Your task to perform on an android device: make emails show in primary in the gmail app Image 0: 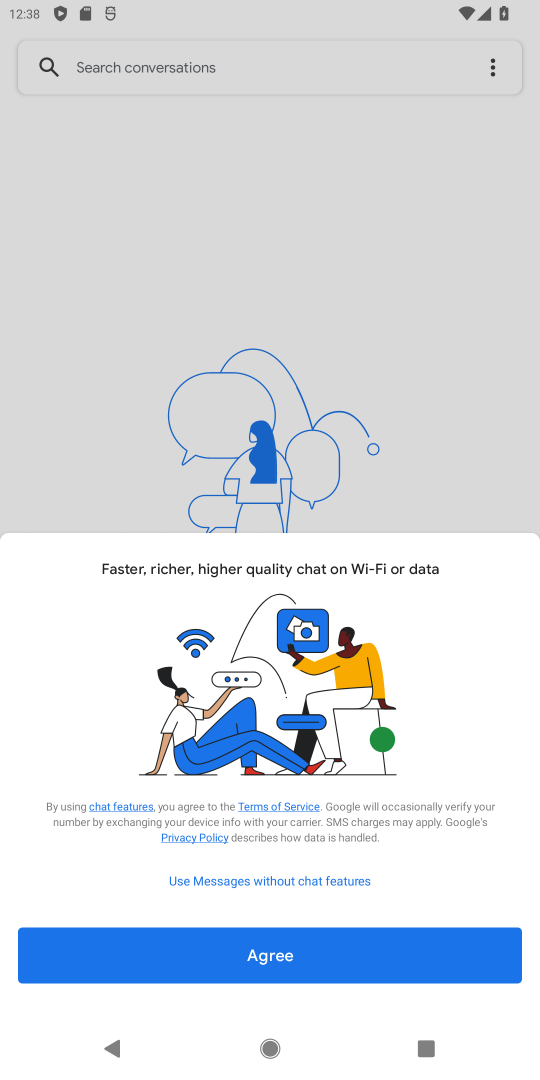
Step 0: drag from (323, 847) to (303, 336)
Your task to perform on an android device: make emails show in primary in the gmail app Image 1: 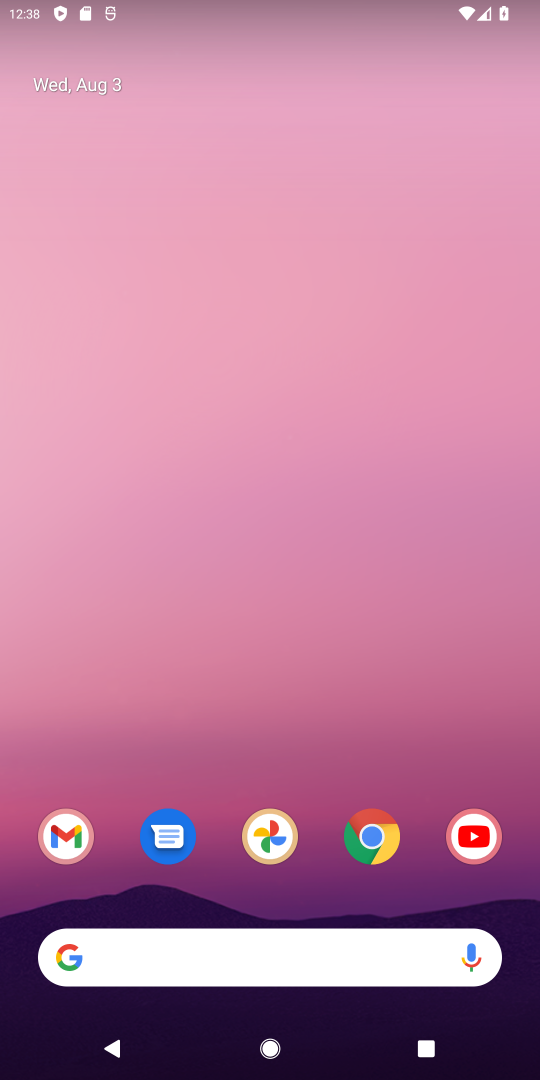
Step 1: drag from (205, 908) to (292, 309)
Your task to perform on an android device: make emails show in primary in the gmail app Image 2: 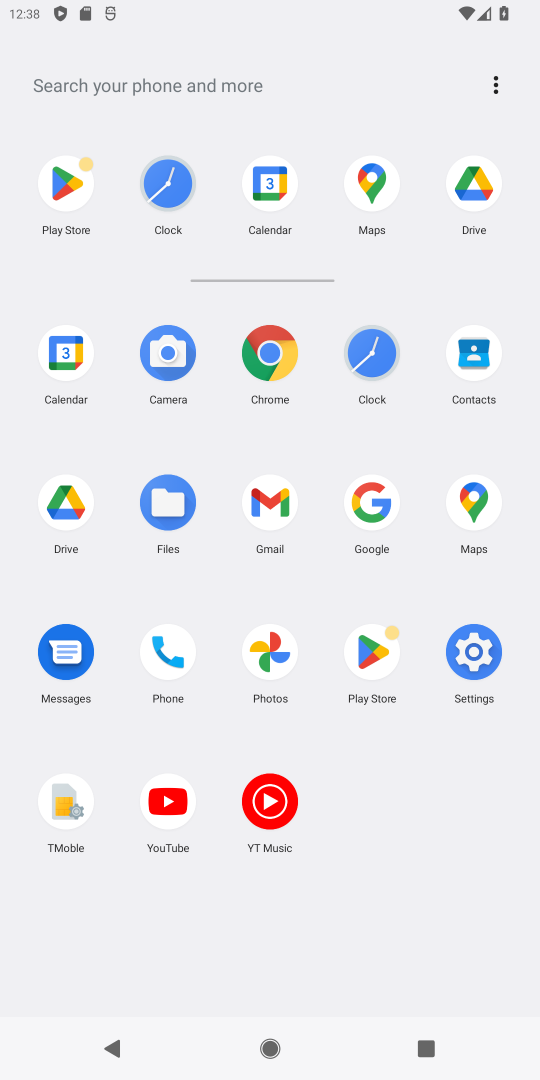
Step 2: click (243, 485)
Your task to perform on an android device: make emails show in primary in the gmail app Image 3: 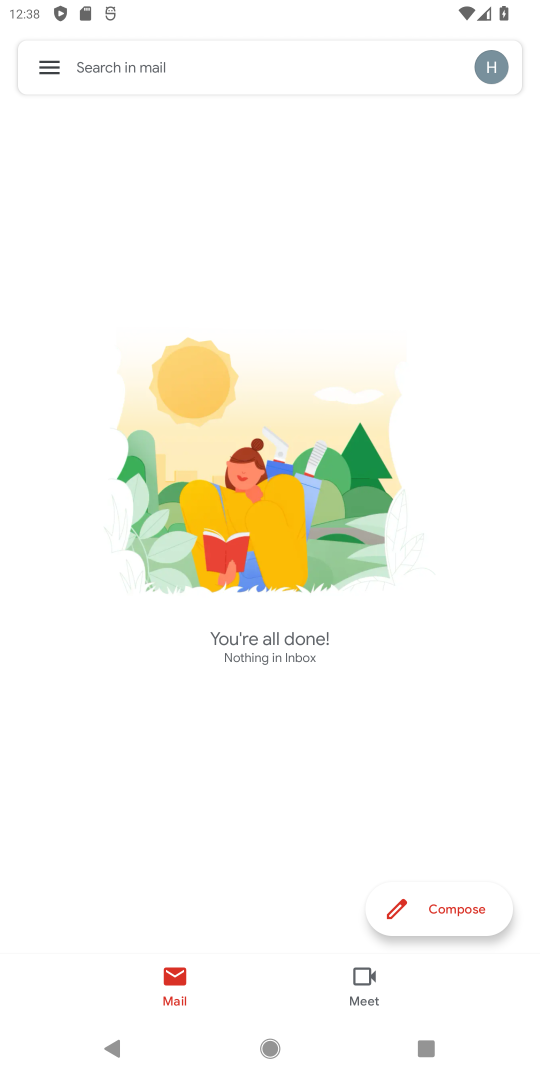
Step 3: click (45, 79)
Your task to perform on an android device: make emails show in primary in the gmail app Image 4: 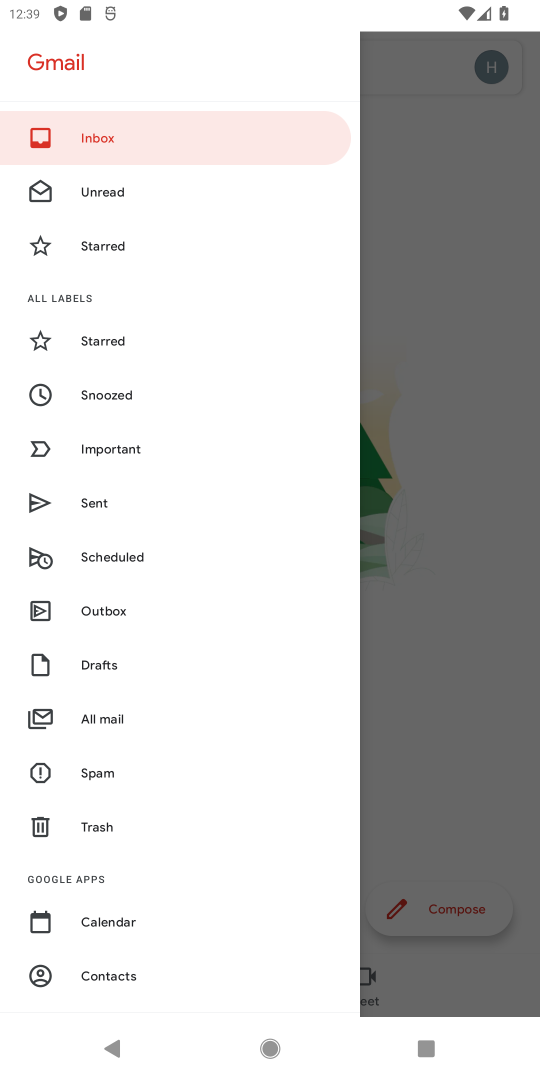
Step 4: drag from (177, 656) to (176, 396)
Your task to perform on an android device: make emails show in primary in the gmail app Image 5: 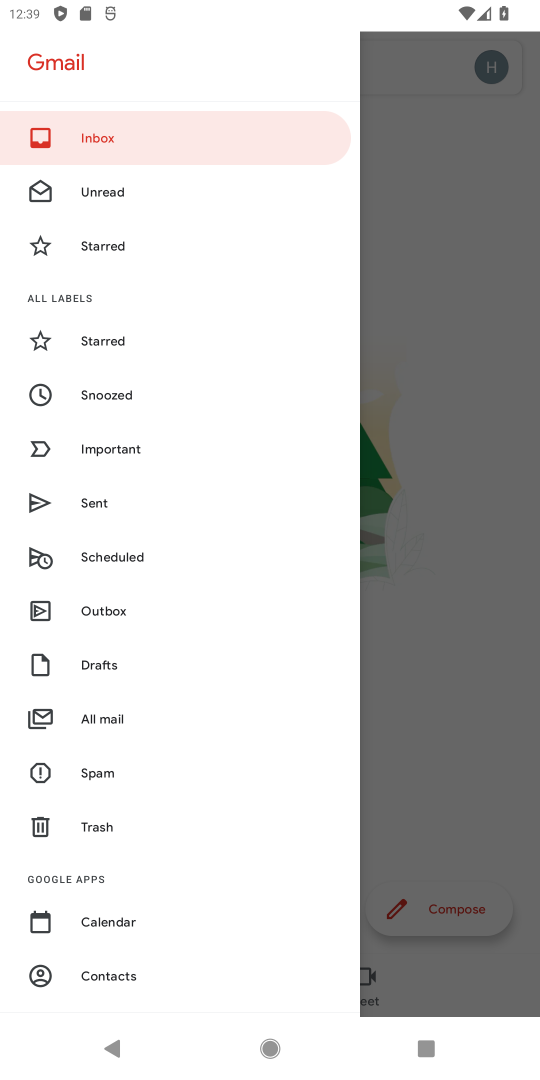
Step 5: drag from (167, 336) to (197, 970)
Your task to perform on an android device: make emails show in primary in the gmail app Image 6: 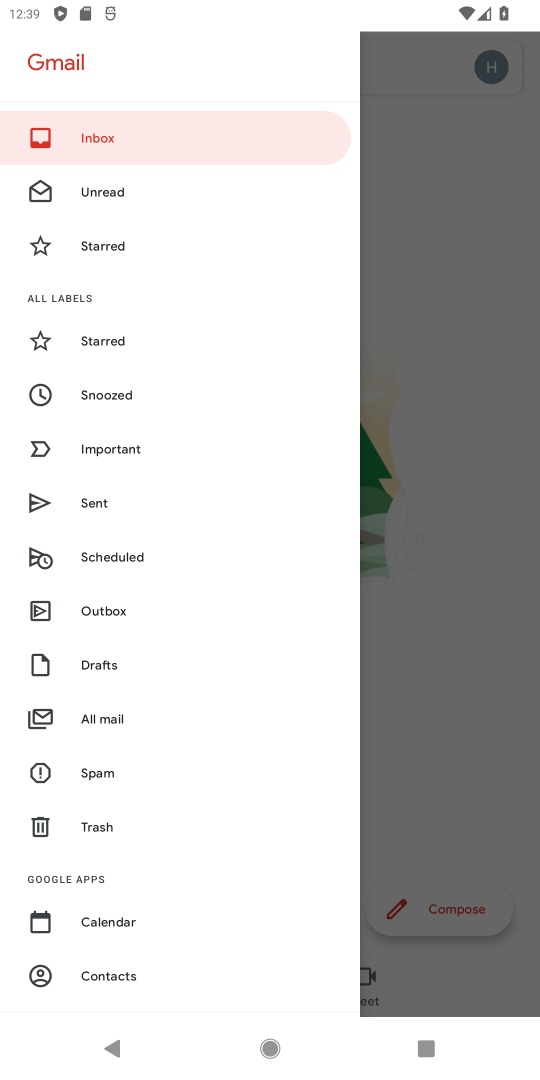
Step 6: click (136, 146)
Your task to perform on an android device: make emails show in primary in the gmail app Image 7: 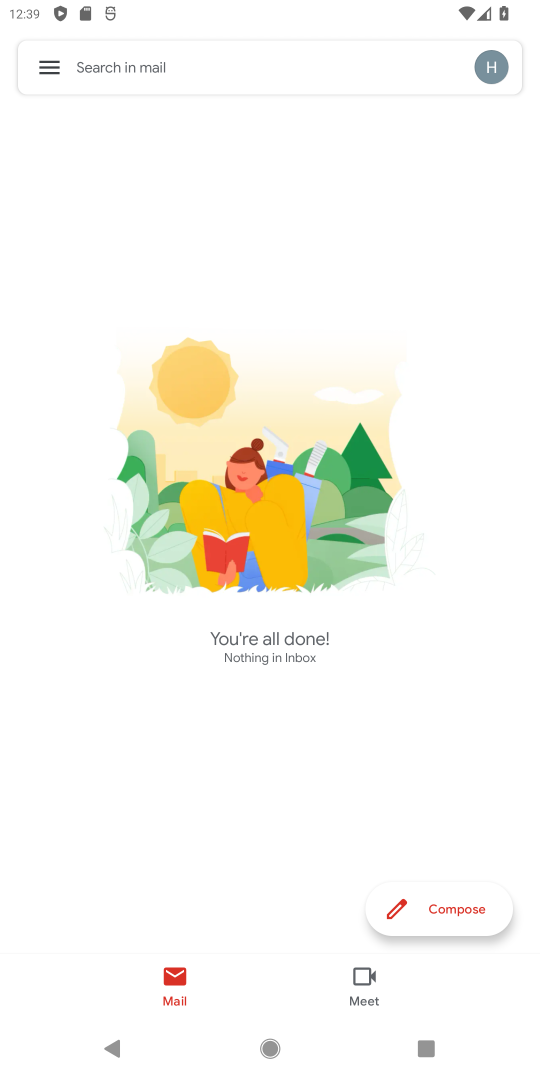
Step 7: drag from (392, 678) to (401, 420)
Your task to perform on an android device: make emails show in primary in the gmail app Image 8: 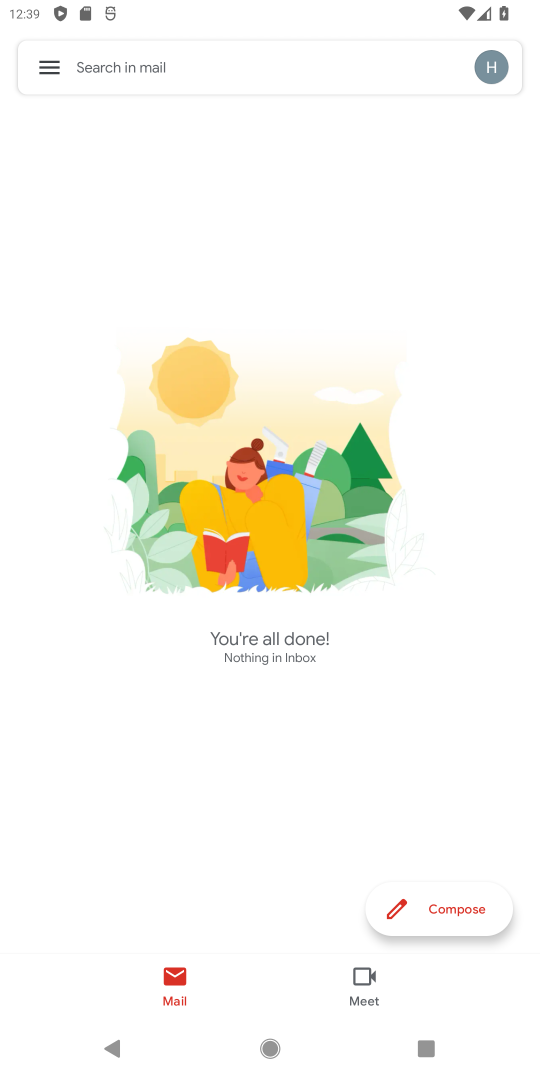
Step 8: drag from (255, 700) to (321, 304)
Your task to perform on an android device: make emails show in primary in the gmail app Image 9: 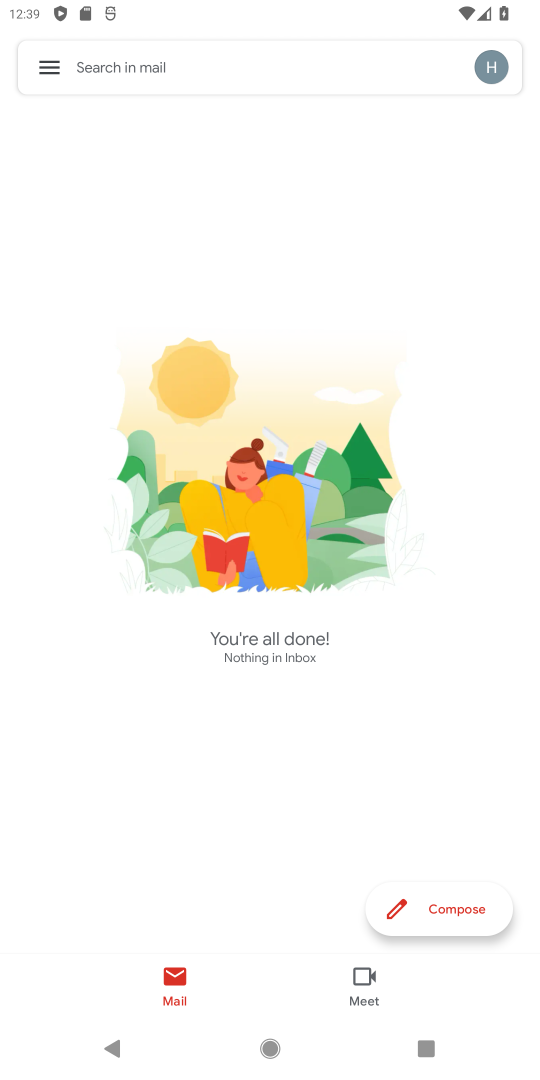
Step 9: drag from (183, 186) to (192, 115)
Your task to perform on an android device: make emails show in primary in the gmail app Image 10: 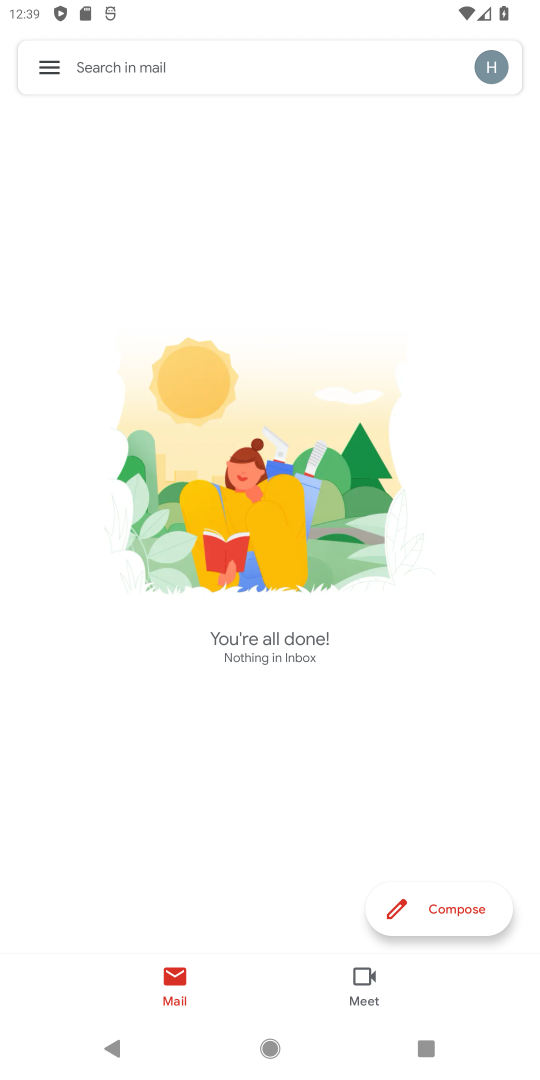
Step 10: click (40, 76)
Your task to perform on an android device: make emails show in primary in the gmail app Image 11: 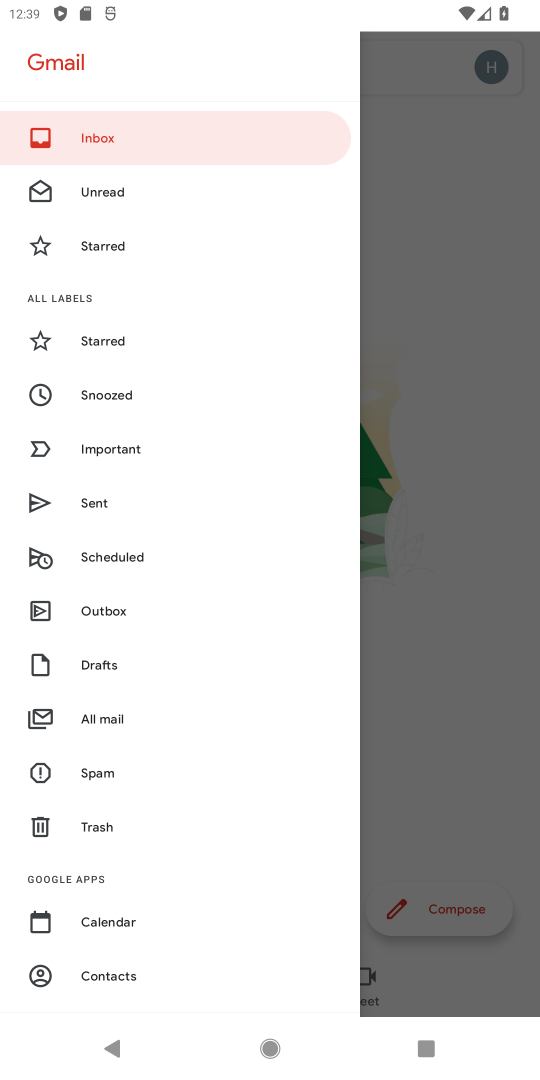
Step 11: click (118, 146)
Your task to perform on an android device: make emails show in primary in the gmail app Image 12: 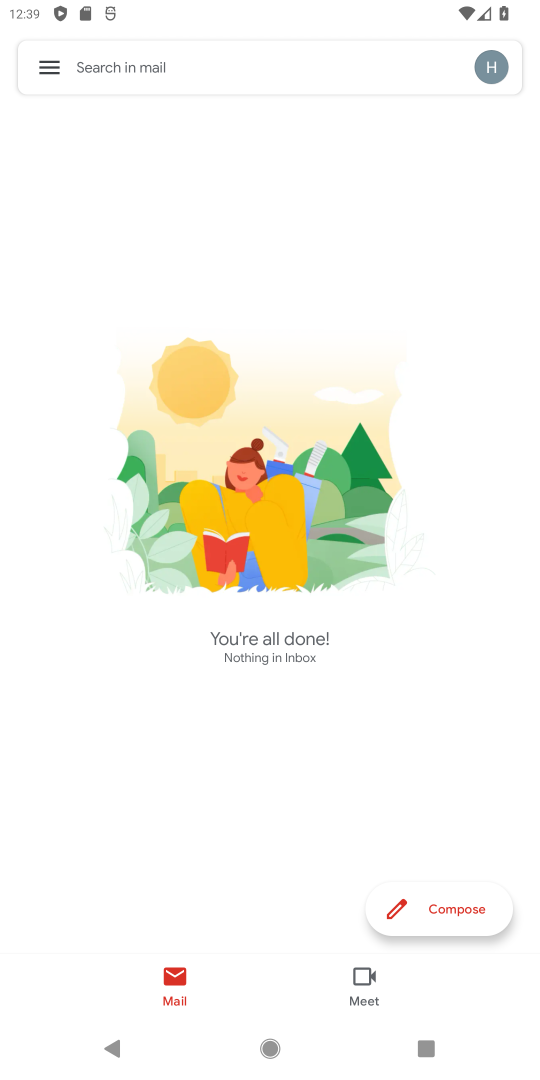
Step 12: task complete